Your task to perform on an android device: open app "Microsoft Excel" Image 0: 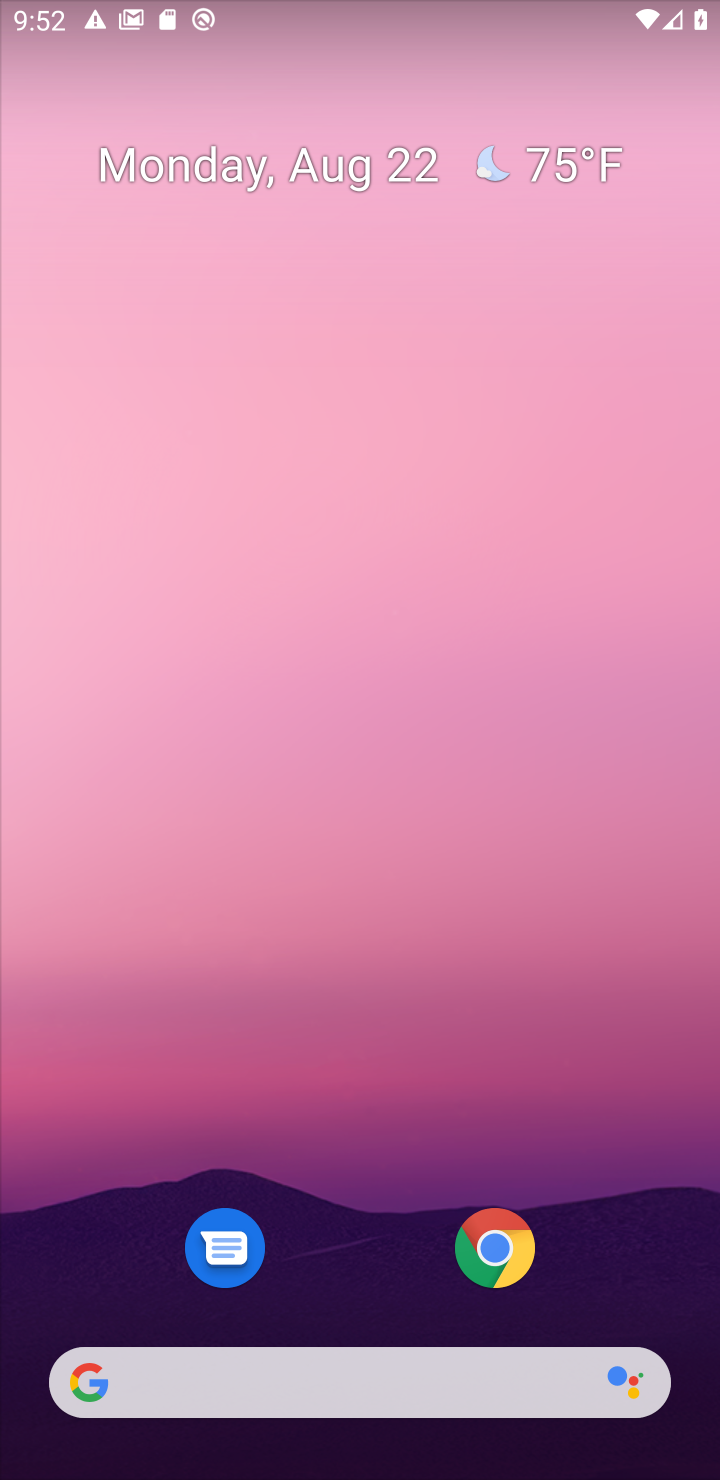
Step 0: drag from (369, 1202) to (369, 213)
Your task to perform on an android device: open app "Microsoft Excel" Image 1: 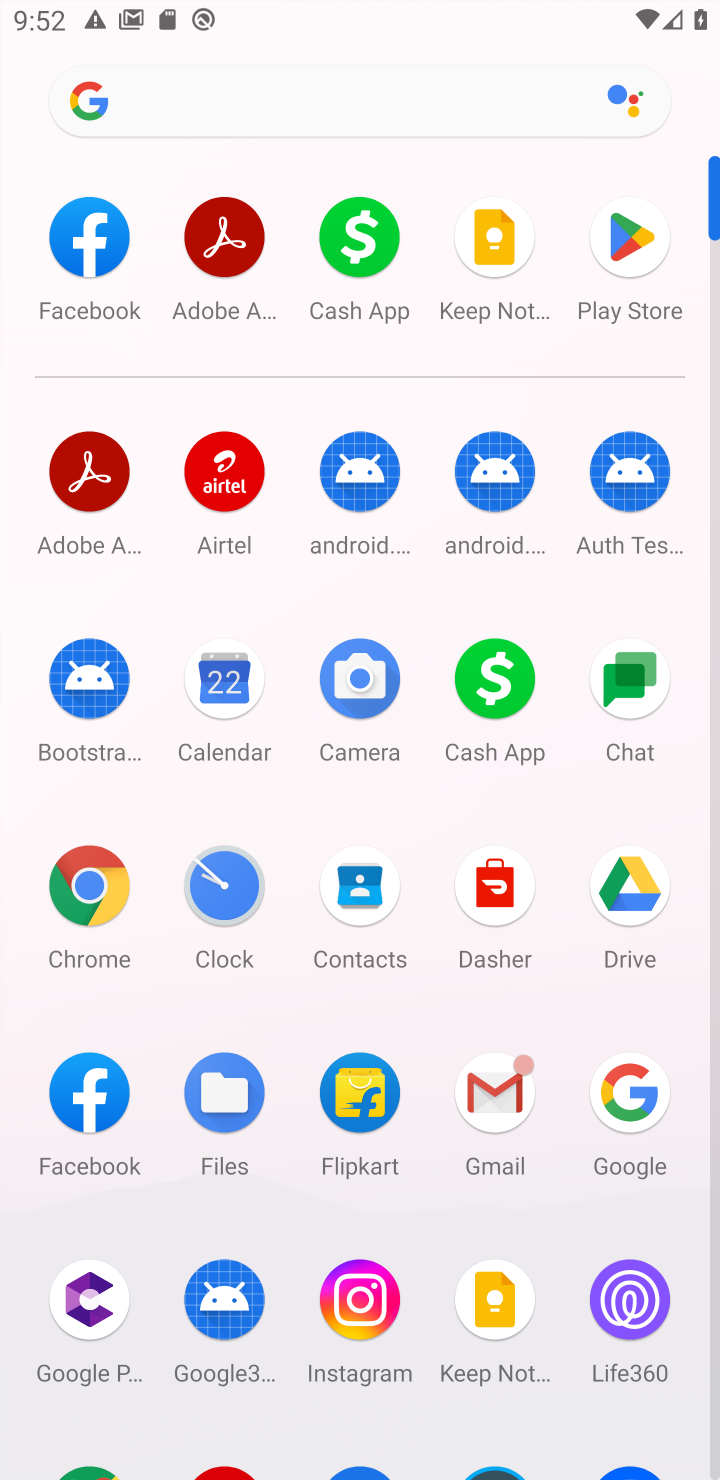
Step 1: click (624, 237)
Your task to perform on an android device: open app "Microsoft Excel" Image 2: 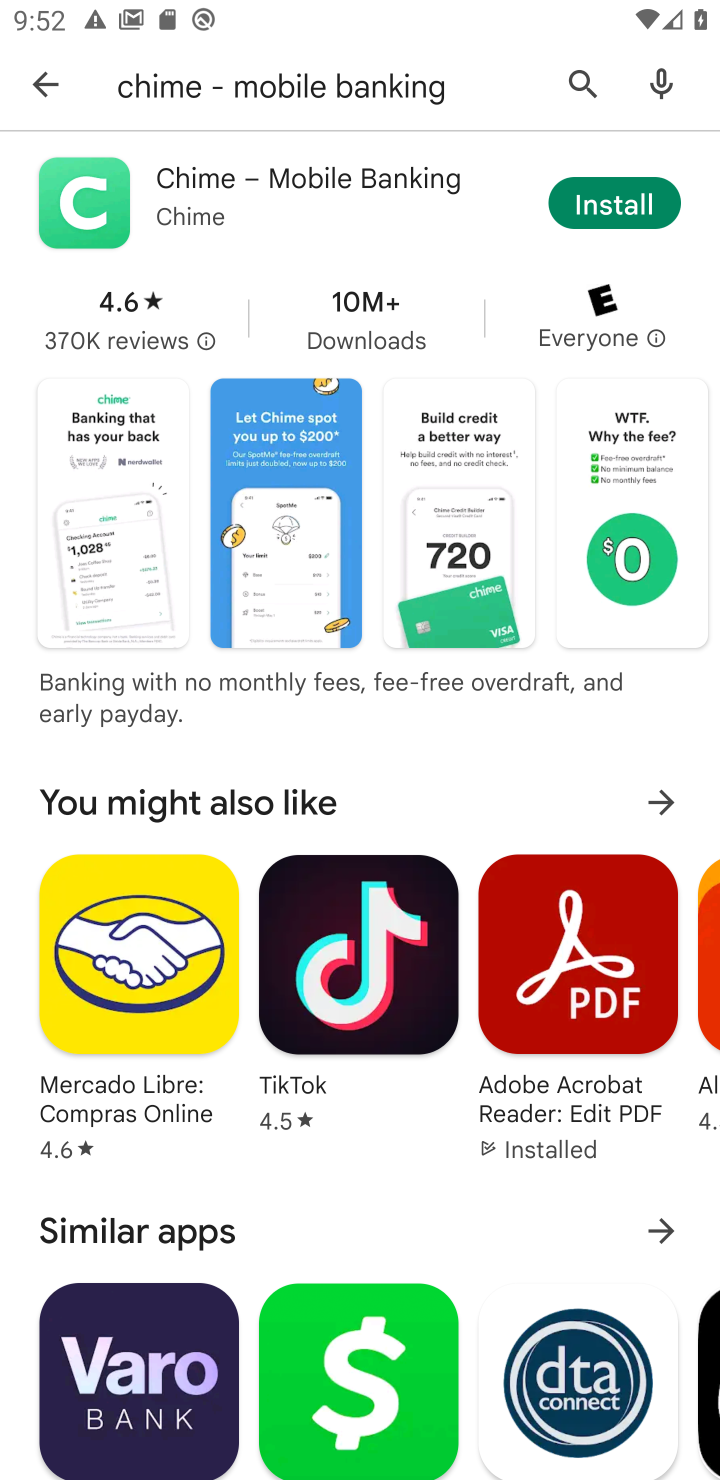
Step 2: click (580, 73)
Your task to perform on an android device: open app "Microsoft Excel" Image 3: 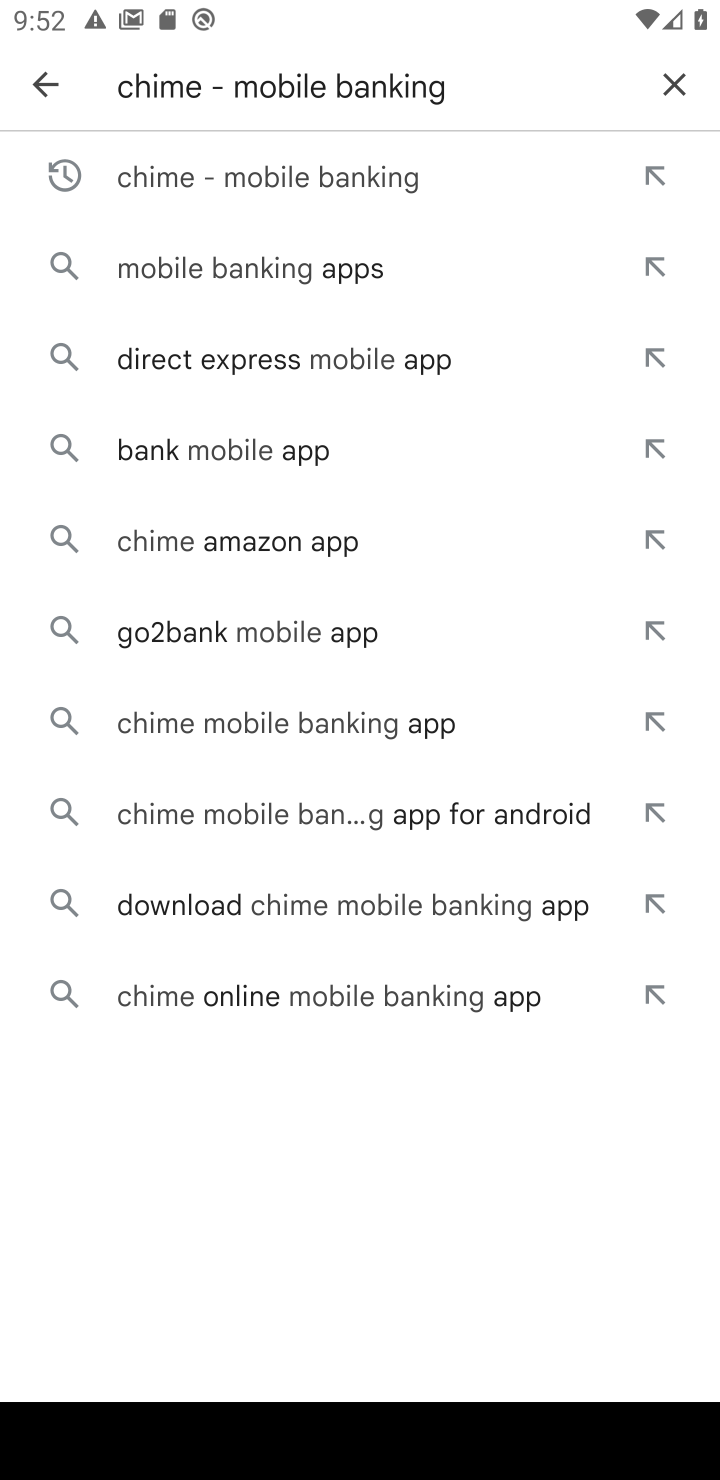
Step 3: click (678, 75)
Your task to perform on an android device: open app "Microsoft Excel" Image 4: 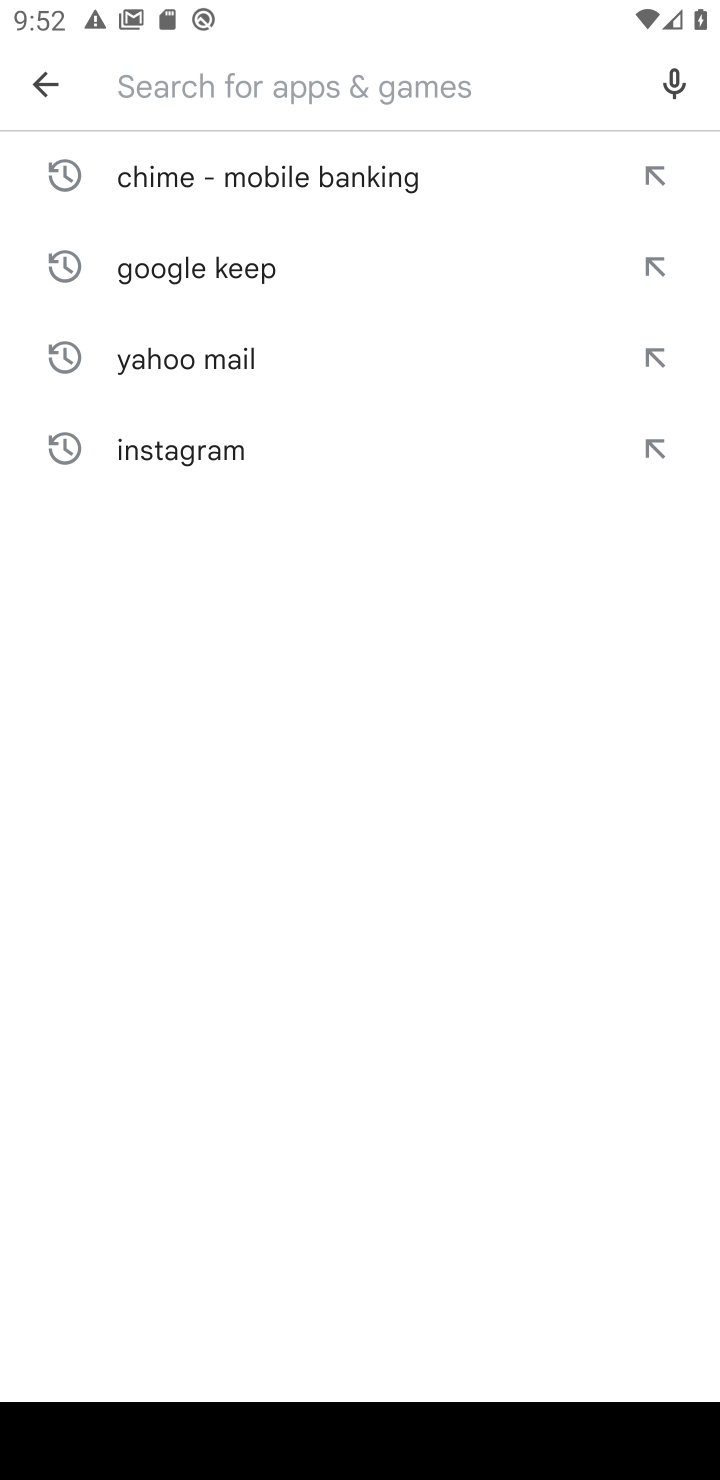
Step 4: type "Microsoft Excel"
Your task to perform on an android device: open app "Microsoft Excel" Image 5: 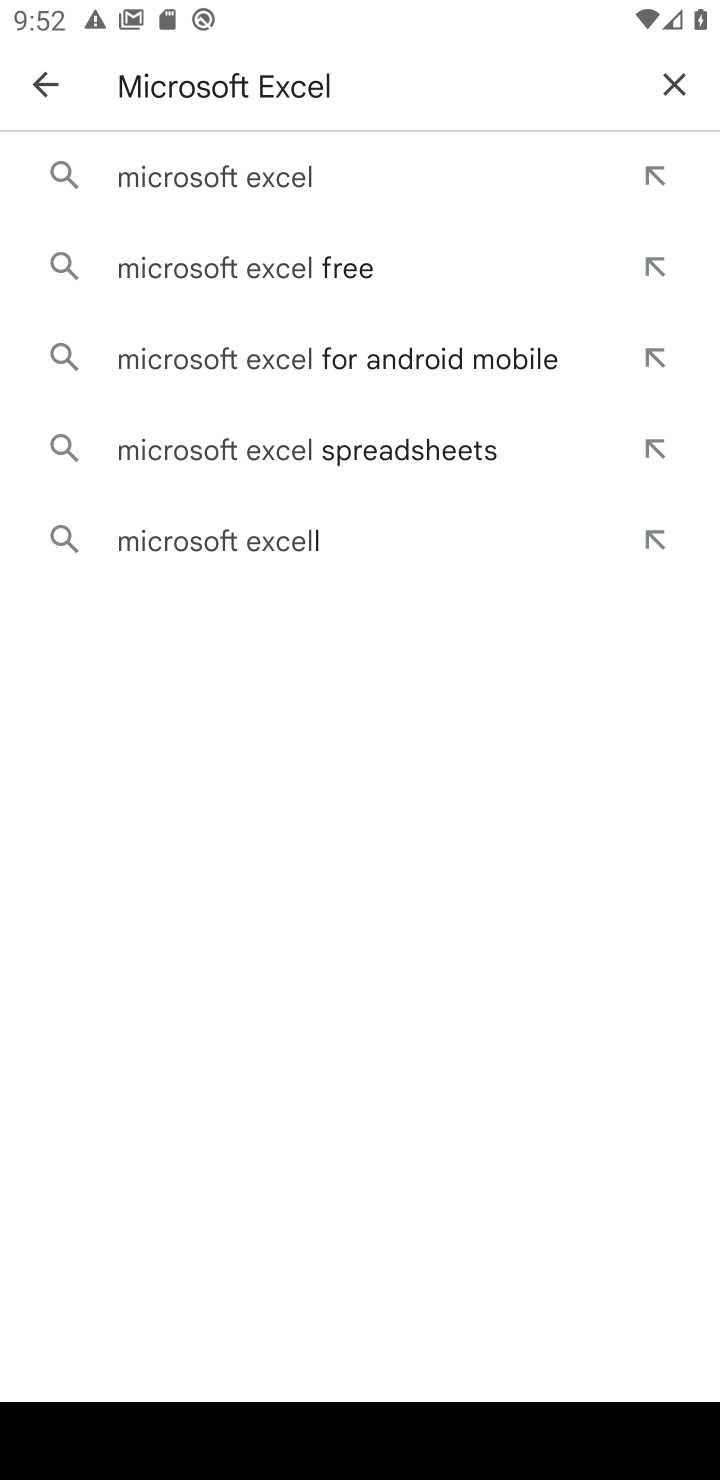
Step 5: click (283, 174)
Your task to perform on an android device: open app "Microsoft Excel" Image 6: 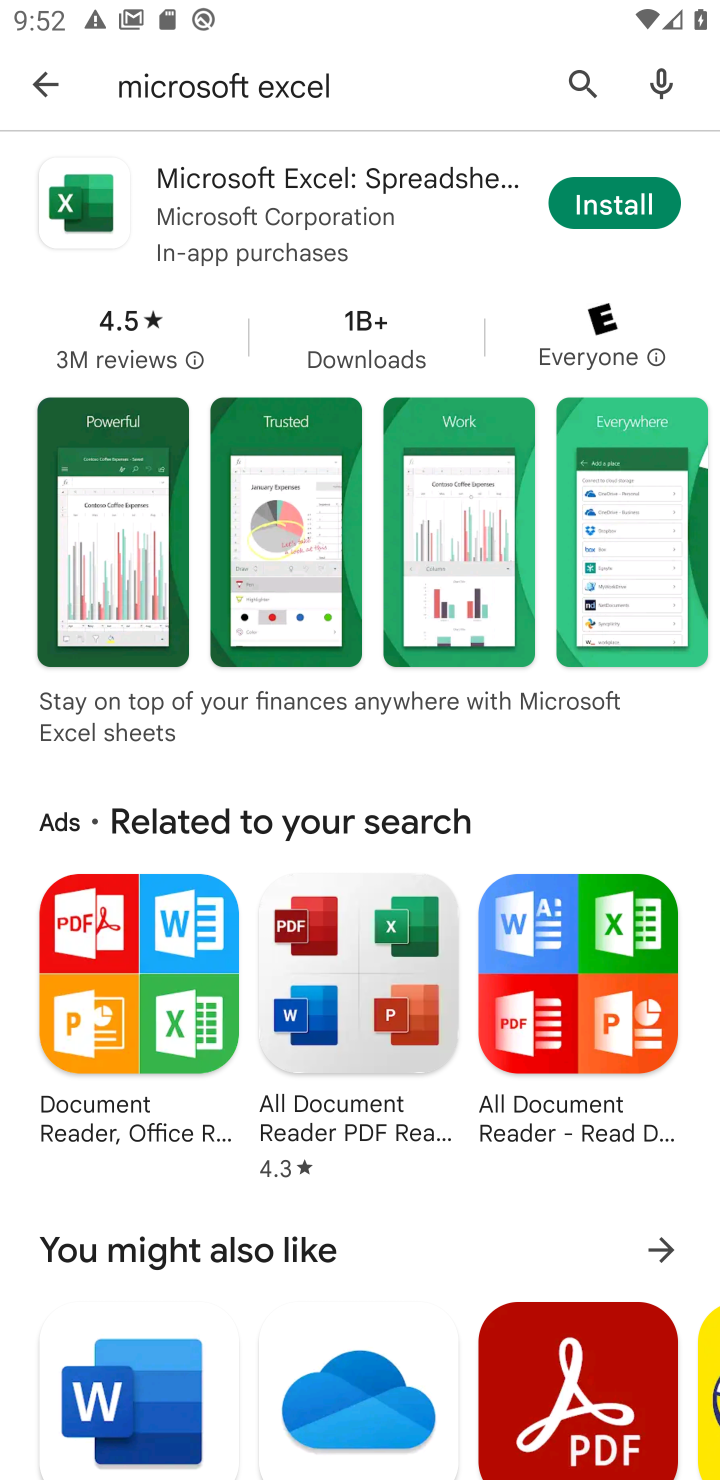
Step 6: task complete